Your task to perform on an android device: Go to Amazon Image 0: 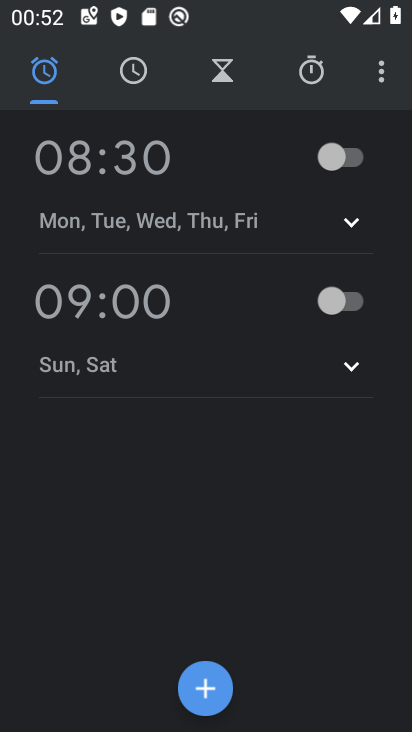
Step 0: press home button
Your task to perform on an android device: Go to Amazon Image 1: 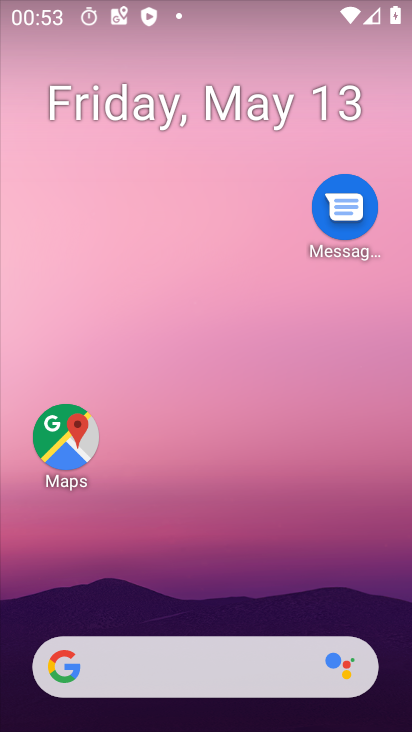
Step 1: click (335, 0)
Your task to perform on an android device: Go to Amazon Image 2: 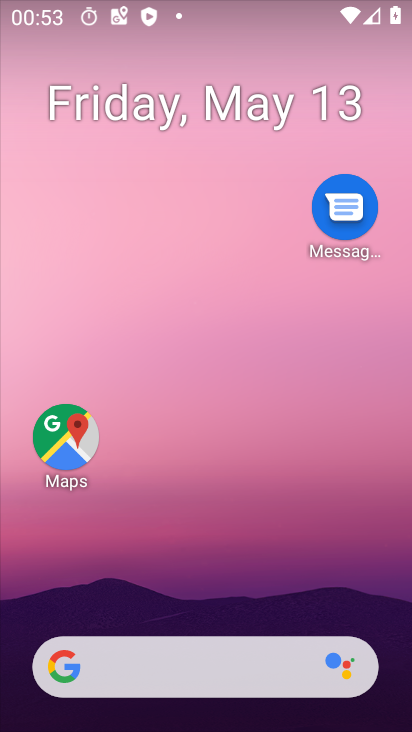
Step 2: press home button
Your task to perform on an android device: Go to Amazon Image 3: 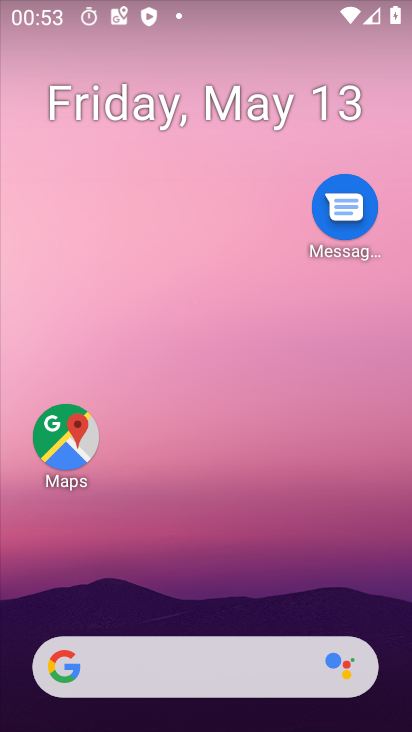
Step 3: drag from (204, 547) to (128, 28)
Your task to perform on an android device: Go to Amazon Image 4: 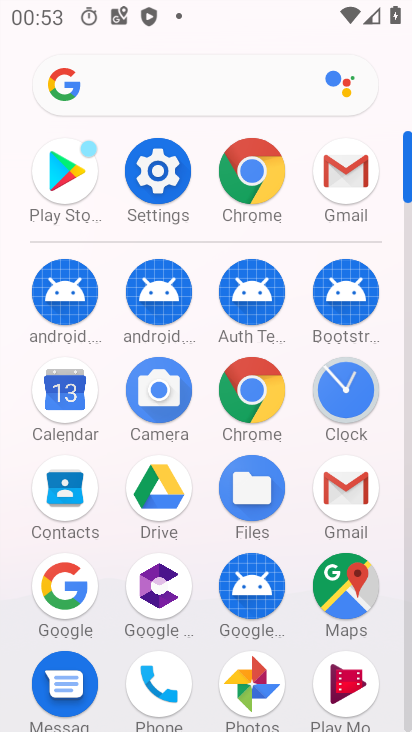
Step 4: click (229, 45)
Your task to perform on an android device: Go to Amazon Image 5: 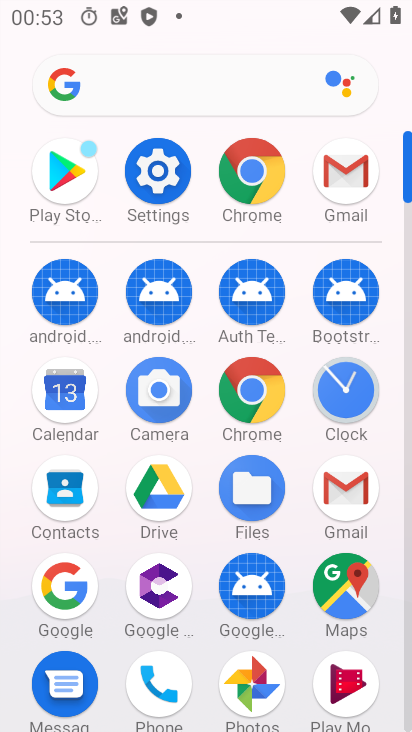
Step 5: click (255, 174)
Your task to perform on an android device: Go to Amazon Image 6: 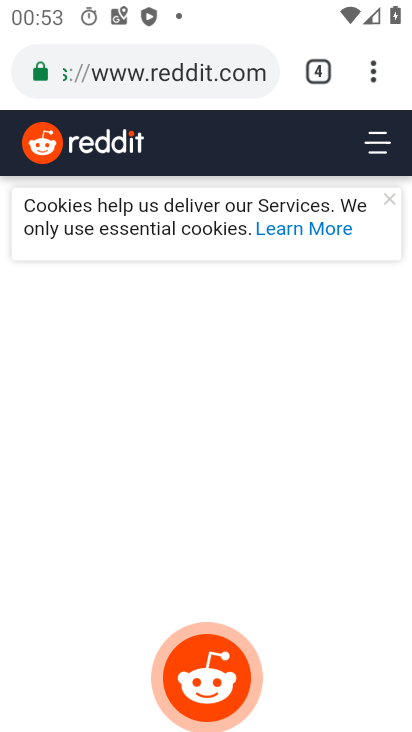
Step 6: click (211, 91)
Your task to perform on an android device: Go to Amazon Image 7: 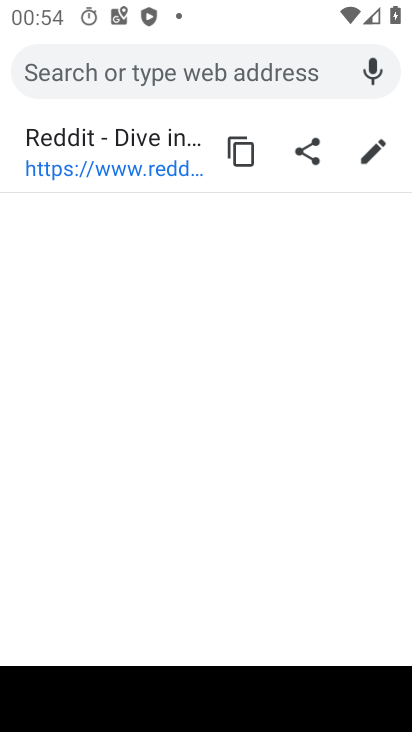
Step 7: type " Amazon"
Your task to perform on an android device: Go to Amazon Image 8: 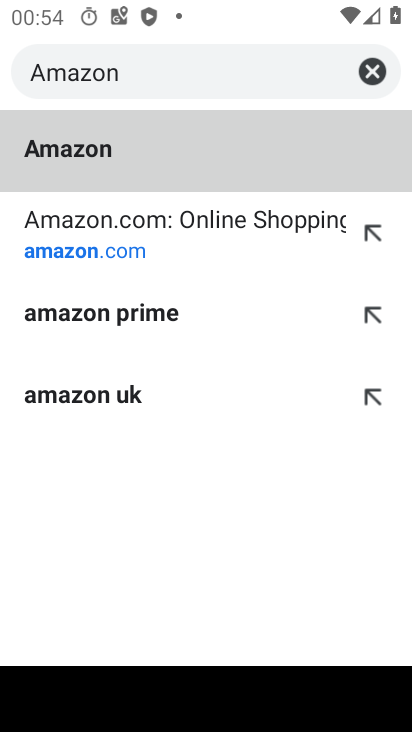
Step 8: click (115, 168)
Your task to perform on an android device: Go to Amazon Image 9: 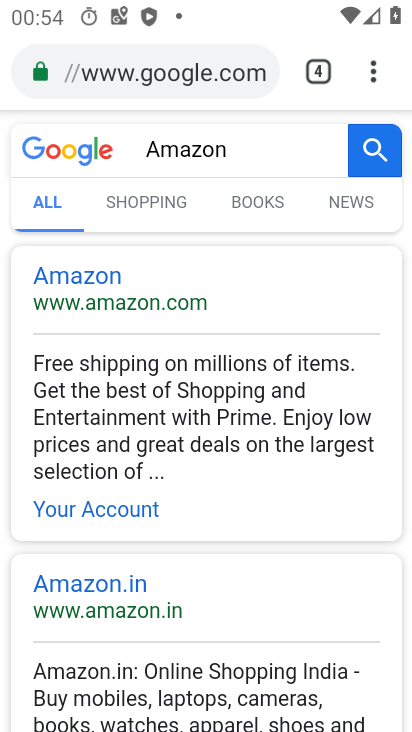
Step 9: click (169, 304)
Your task to perform on an android device: Go to Amazon Image 10: 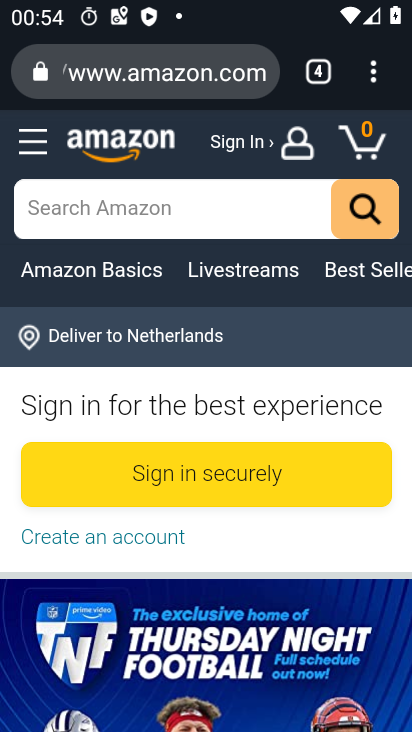
Step 10: task complete